Your task to perform on an android device: What's the weather today? Image 0: 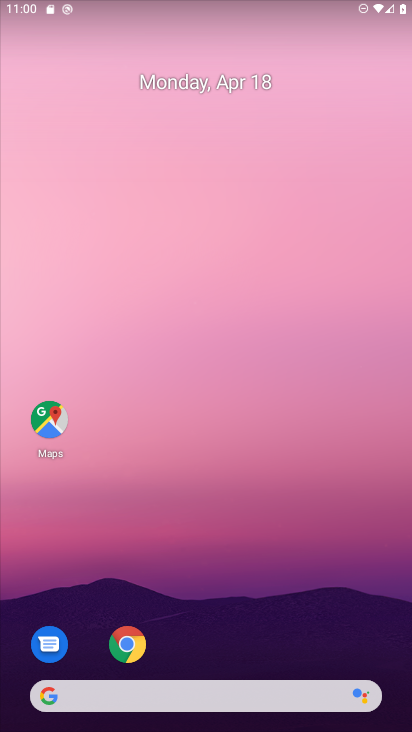
Step 0: click (178, 704)
Your task to perform on an android device: What's the weather today? Image 1: 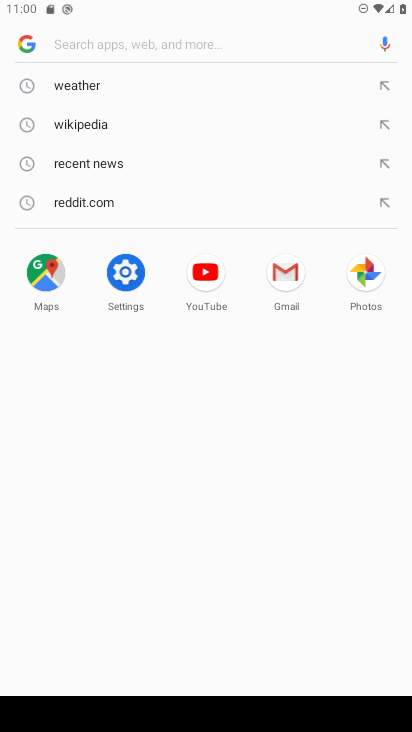
Step 1: click (101, 83)
Your task to perform on an android device: What's the weather today? Image 2: 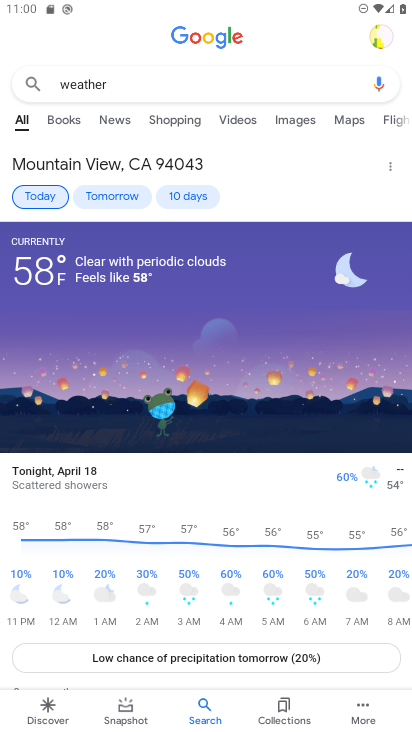
Step 2: task complete